Your task to perform on an android device: Open wifi settings Image 0: 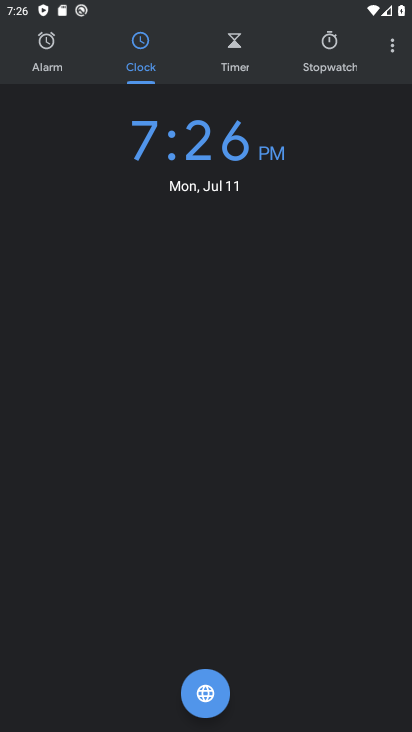
Step 0: press home button
Your task to perform on an android device: Open wifi settings Image 1: 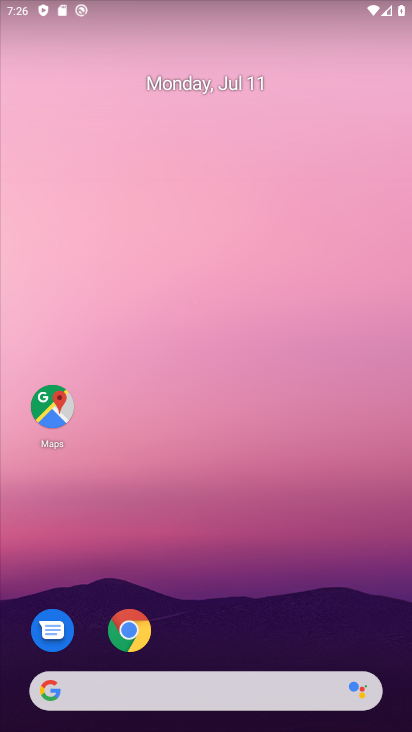
Step 1: drag from (225, 682) to (268, 161)
Your task to perform on an android device: Open wifi settings Image 2: 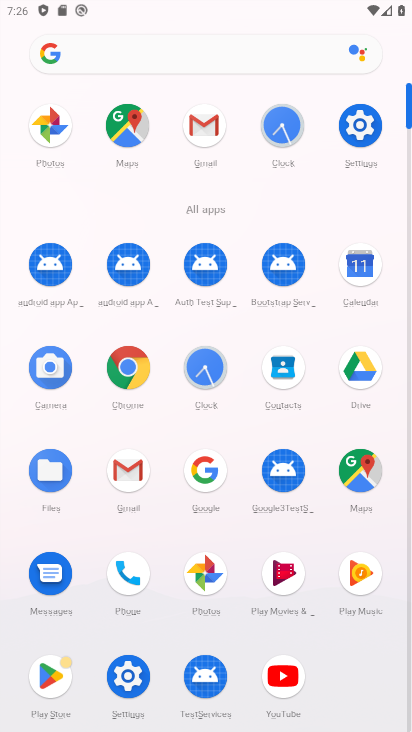
Step 2: click (363, 127)
Your task to perform on an android device: Open wifi settings Image 3: 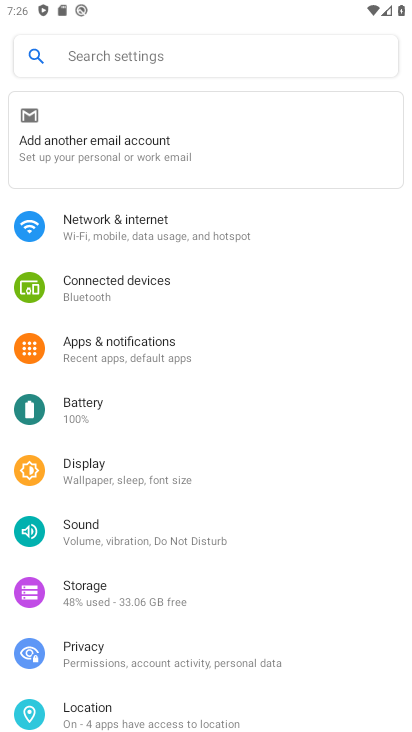
Step 3: click (122, 227)
Your task to perform on an android device: Open wifi settings Image 4: 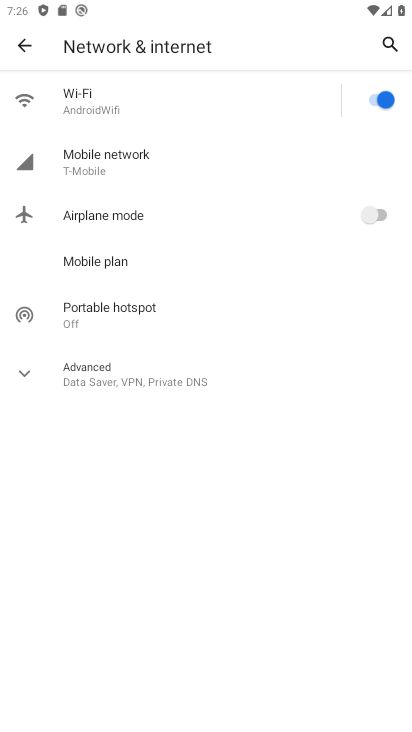
Step 4: click (77, 109)
Your task to perform on an android device: Open wifi settings Image 5: 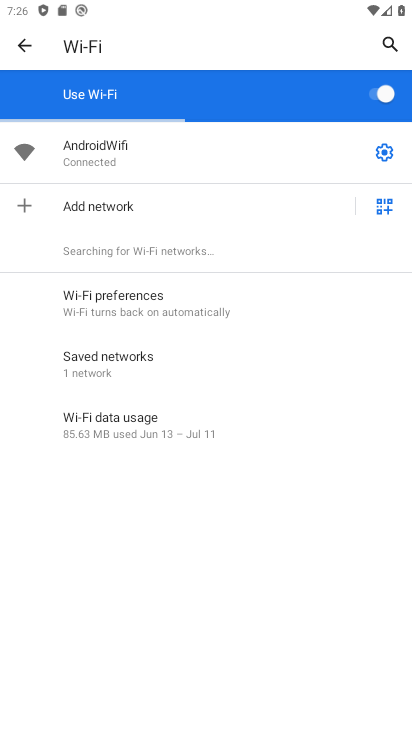
Step 5: task complete